Your task to perform on an android device: change the clock display to show seconds Image 0: 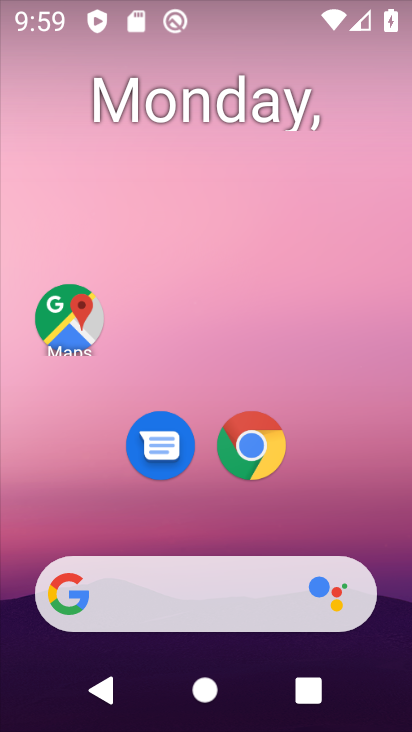
Step 0: drag from (367, 498) to (332, 113)
Your task to perform on an android device: change the clock display to show seconds Image 1: 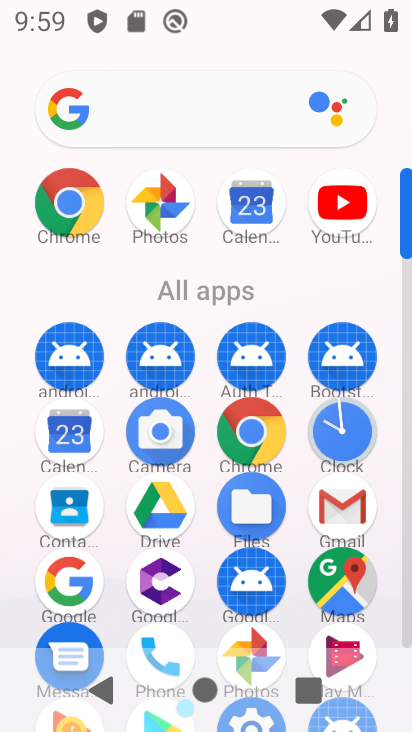
Step 1: click (344, 438)
Your task to perform on an android device: change the clock display to show seconds Image 2: 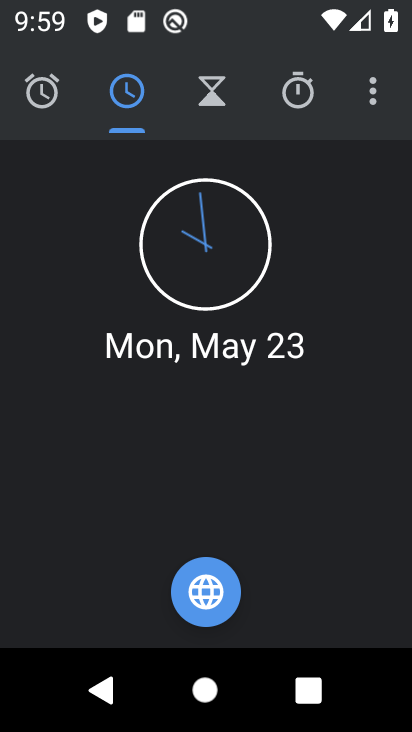
Step 2: click (383, 88)
Your task to perform on an android device: change the clock display to show seconds Image 3: 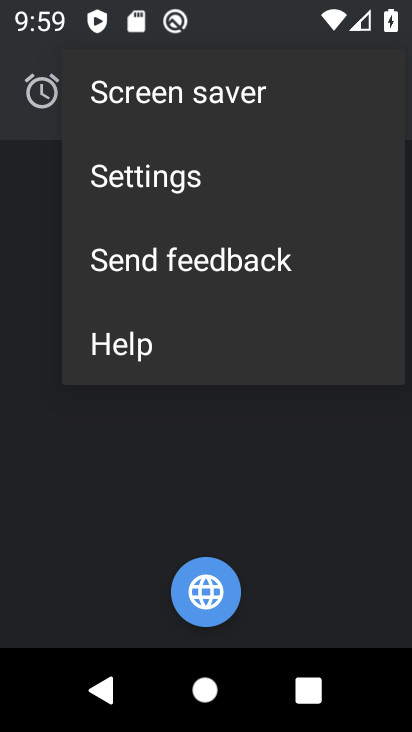
Step 3: click (234, 156)
Your task to perform on an android device: change the clock display to show seconds Image 4: 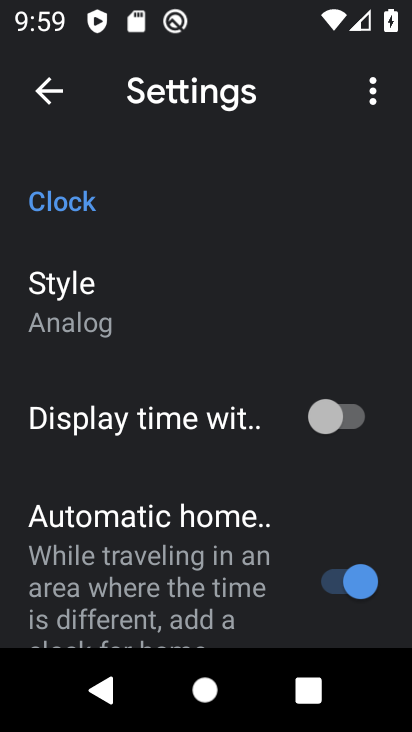
Step 4: click (348, 408)
Your task to perform on an android device: change the clock display to show seconds Image 5: 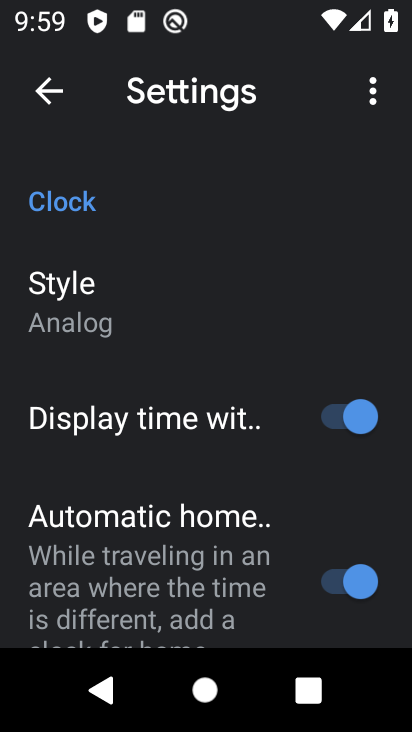
Step 5: task complete